Your task to perform on an android device: Open the phone app and click the voicemail tab. Image 0: 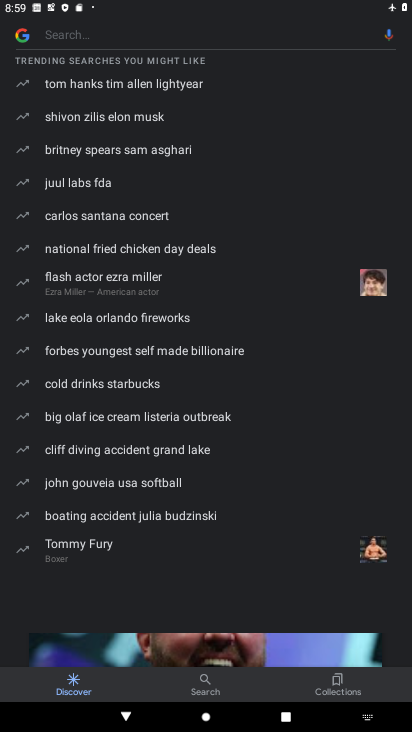
Step 0: press home button
Your task to perform on an android device: Open the phone app and click the voicemail tab. Image 1: 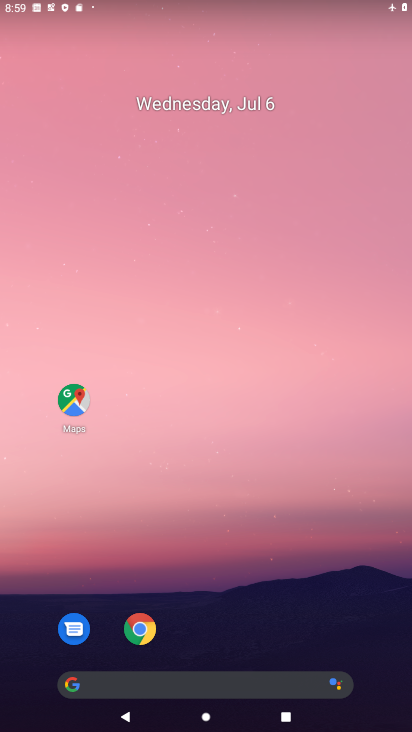
Step 1: drag from (216, 615) to (256, 99)
Your task to perform on an android device: Open the phone app and click the voicemail tab. Image 2: 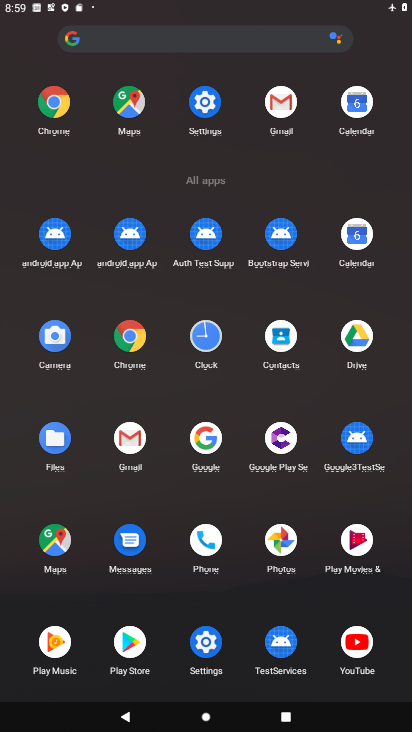
Step 2: click (206, 541)
Your task to perform on an android device: Open the phone app and click the voicemail tab. Image 3: 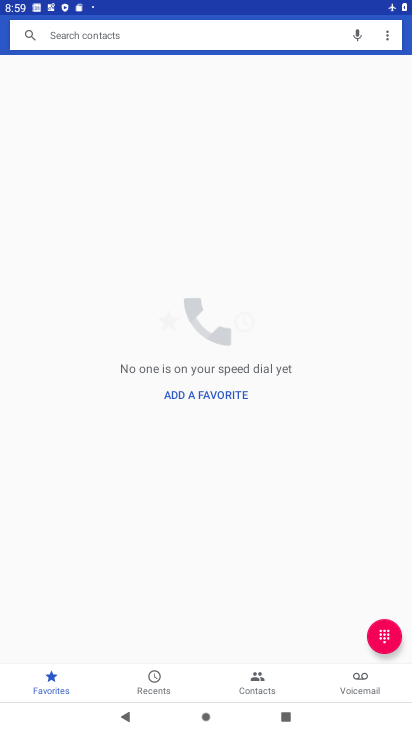
Step 3: click (360, 678)
Your task to perform on an android device: Open the phone app and click the voicemail tab. Image 4: 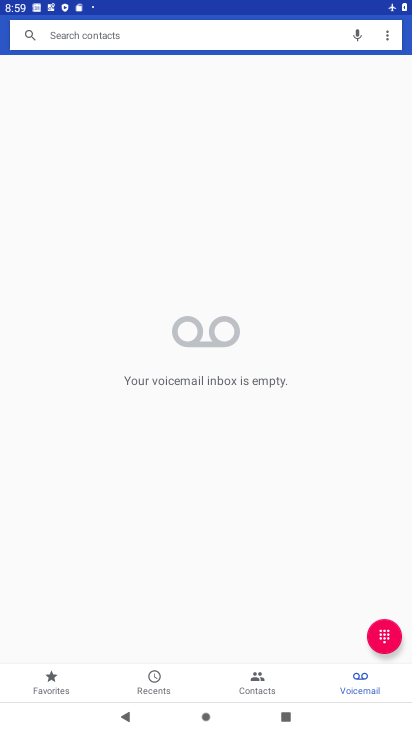
Step 4: task complete